Your task to perform on an android device: Install the Wikipedia app Image 0: 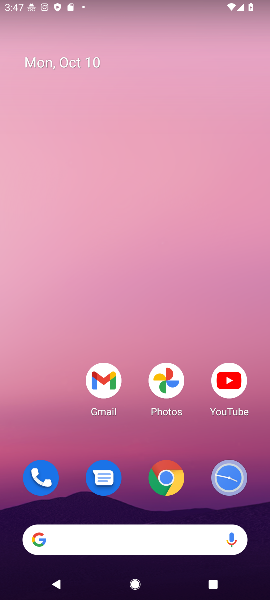
Step 0: drag from (124, 507) to (120, 147)
Your task to perform on an android device: Install the Wikipedia app Image 1: 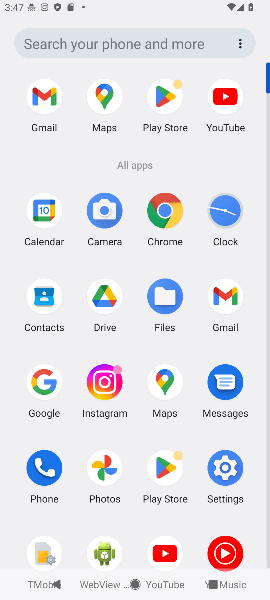
Step 1: click (179, 459)
Your task to perform on an android device: Install the Wikipedia app Image 2: 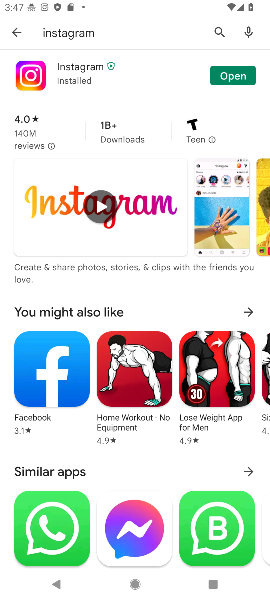
Step 2: click (213, 34)
Your task to perform on an android device: Install the Wikipedia app Image 3: 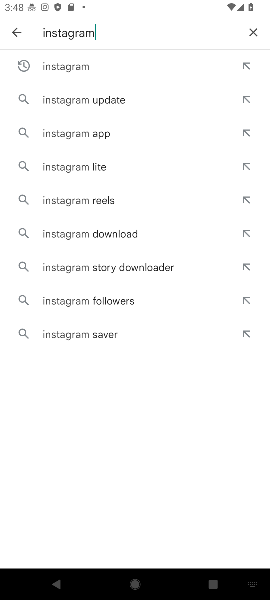
Step 3: click (249, 31)
Your task to perform on an android device: Install the Wikipedia app Image 4: 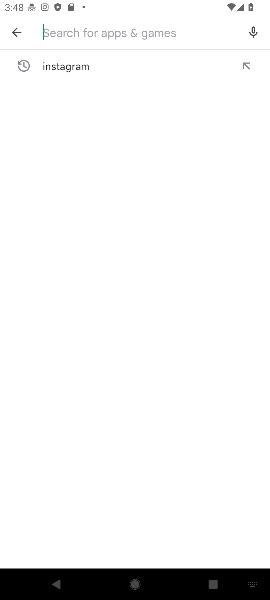
Step 4: type "wikipedia"
Your task to perform on an android device: Install the Wikipedia app Image 5: 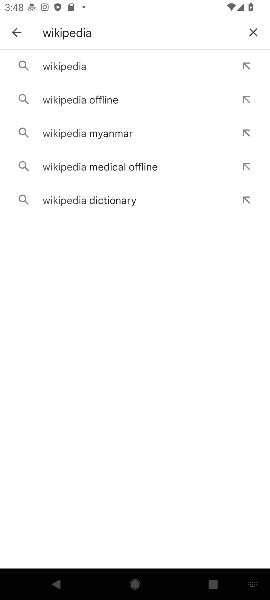
Step 5: click (99, 73)
Your task to perform on an android device: Install the Wikipedia app Image 6: 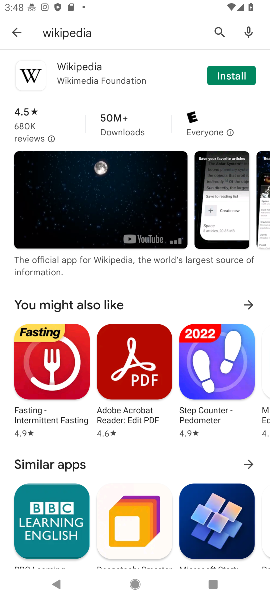
Step 6: click (225, 77)
Your task to perform on an android device: Install the Wikipedia app Image 7: 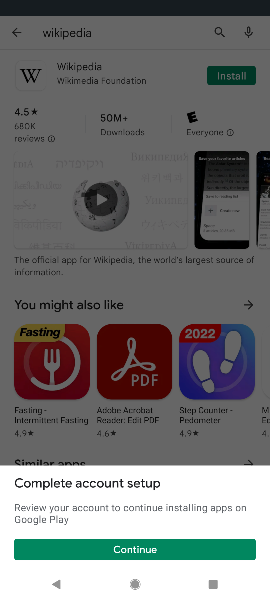
Step 7: click (129, 557)
Your task to perform on an android device: Install the Wikipedia app Image 8: 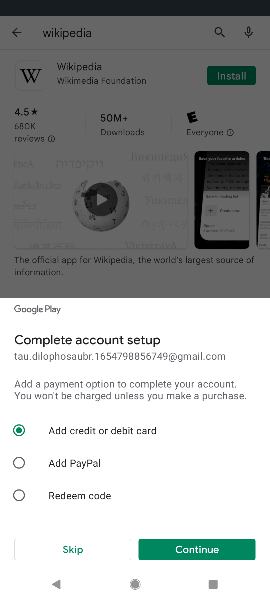
Step 8: click (66, 539)
Your task to perform on an android device: Install the Wikipedia app Image 9: 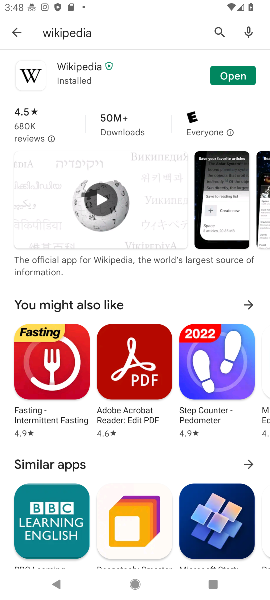
Step 9: task complete